Your task to perform on an android device: Open internet settings Image 0: 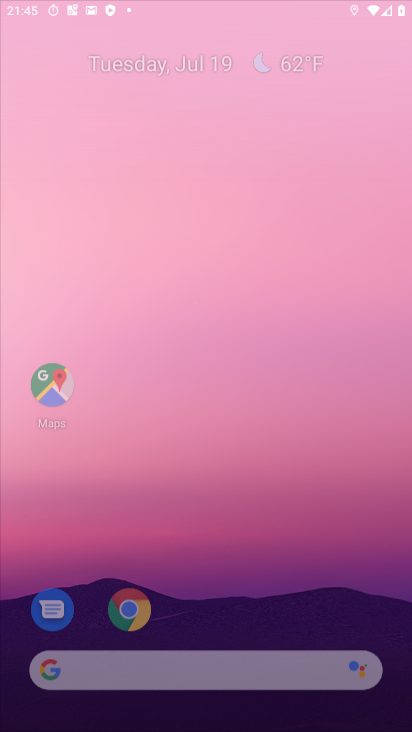
Step 0: drag from (80, 569) to (321, 30)
Your task to perform on an android device: Open internet settings Image 1: 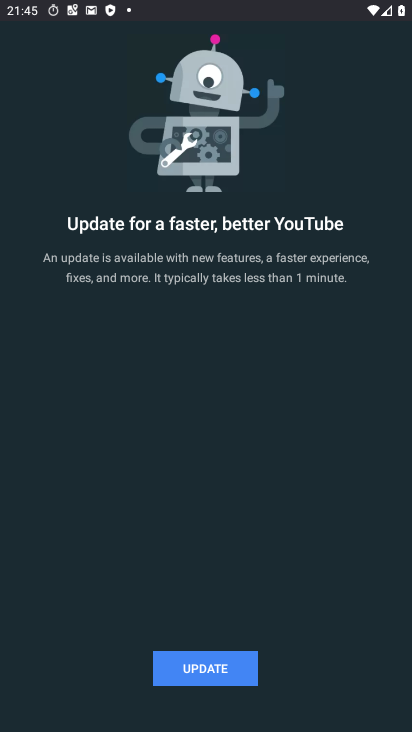
Step 1: press home button
Your task to perform on an android device: Open internet settings Image 2: 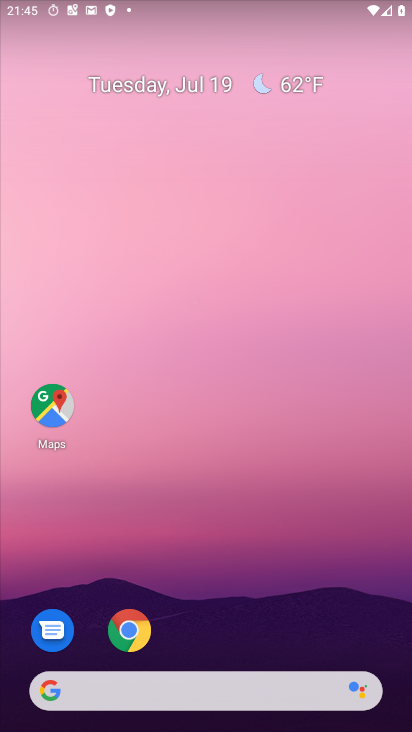
Step 2: drag from (82, 601) to (233, 173)
Your task to perform on an android device: Open internet settings Image 3: 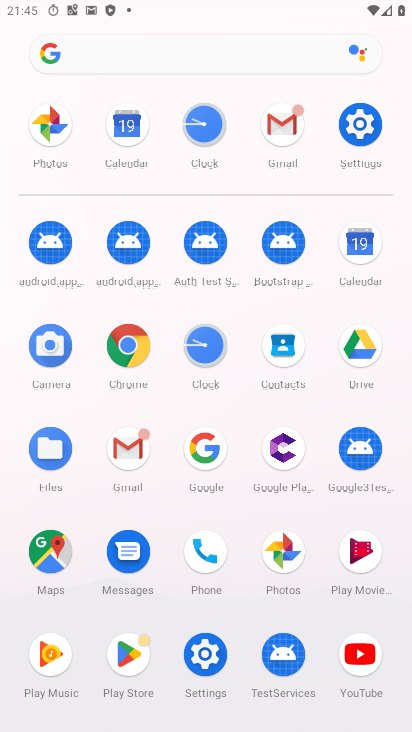
Step 3: click (216, 654)
Your task to perform on an android device: Open internet settings Image 4: 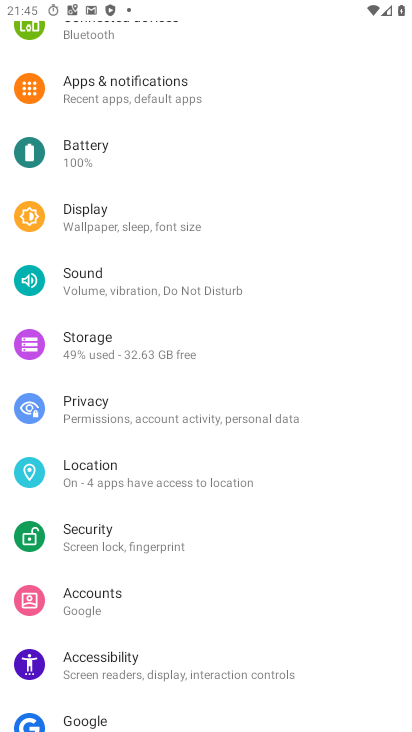
Step 4: drag from (218, 156) to (221, 536)
Your task to perform on an android device: Open internet settings Image 5: 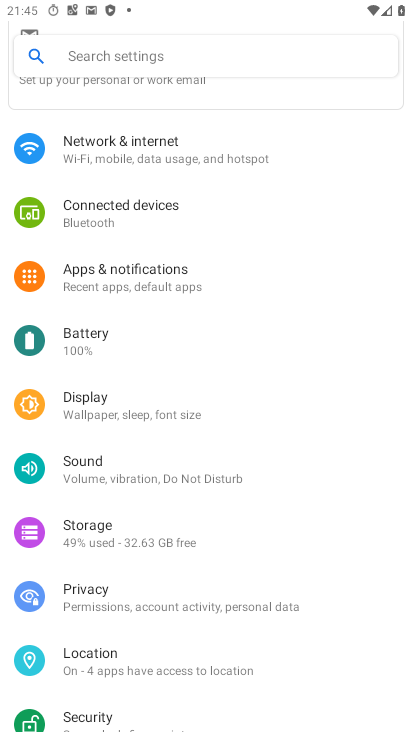
Step 5: click (143, 141)
Your task to perform on an android device: Open internet settings Image 6: 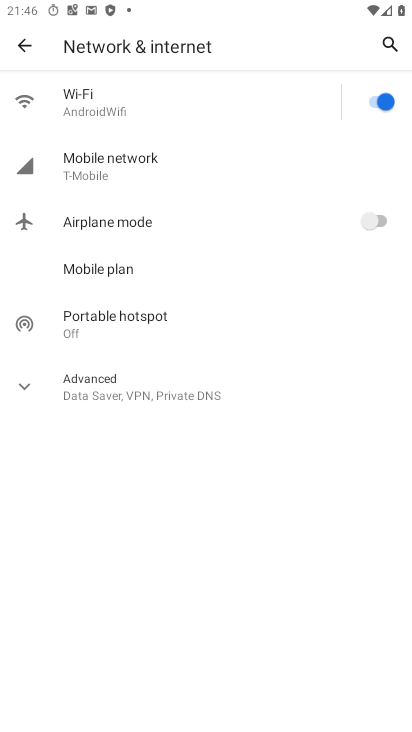
Step 6: task complete